Your task to perform on an android device: set the stopwatch Image 0: 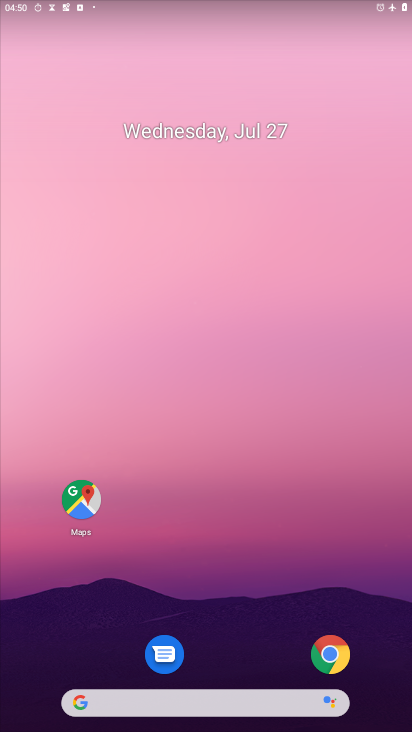
Step 0: drag from (256, 701) to (249, 0)
Your task to perform on an android device: set the stopwatch Image 1: 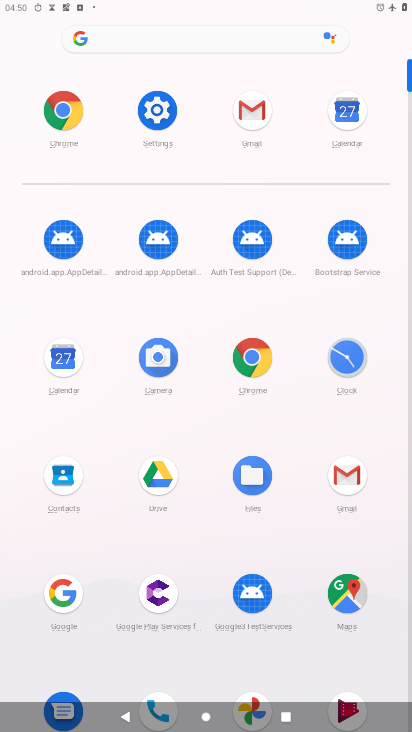
Step 1: click (356, 352)
Your task to perform on an android device: set the stopwatch Image 2: 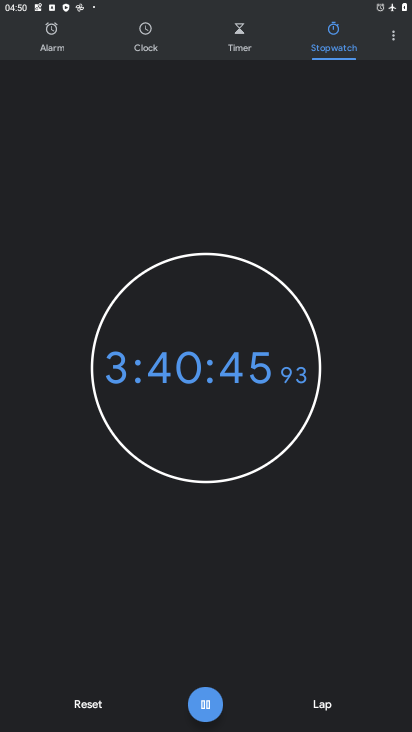
Step 2: task complete